Your task to perform on an android device: Open sound settings Image 0: 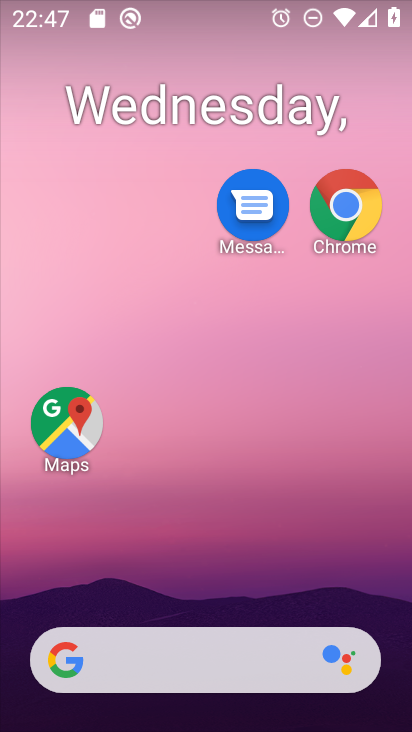
Step 0: drag from (162, 517) to (212, 97)
Your task to perform on an android device: Open sound settings Image 1: 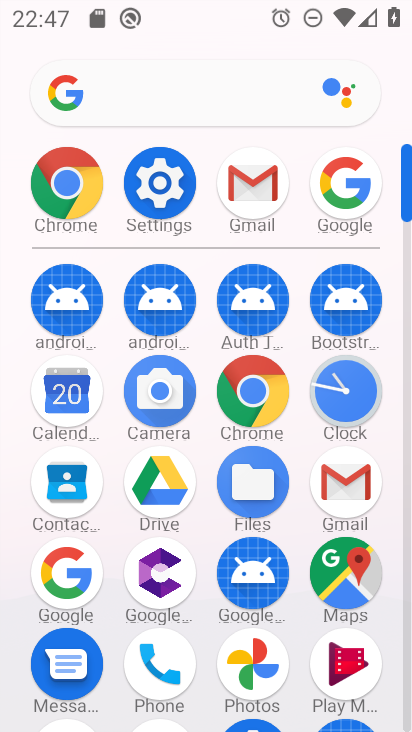
Step 1: click (167, 181)
Your task to perform on an android device: Open sound settings Image 2: 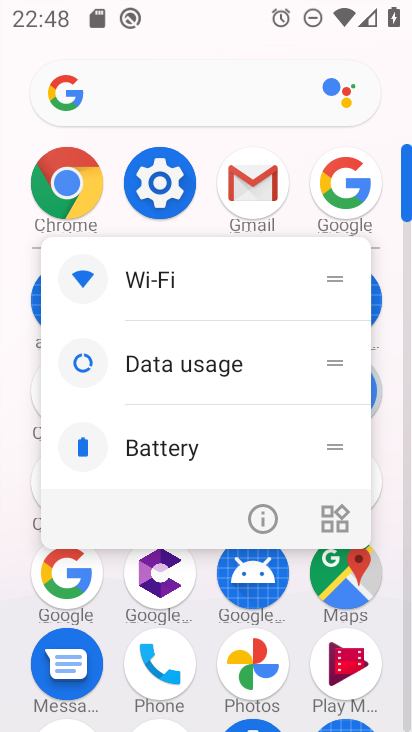
Step 2: click (273, 521)
Your task to perform on an android device: Open sound settings Image 3: 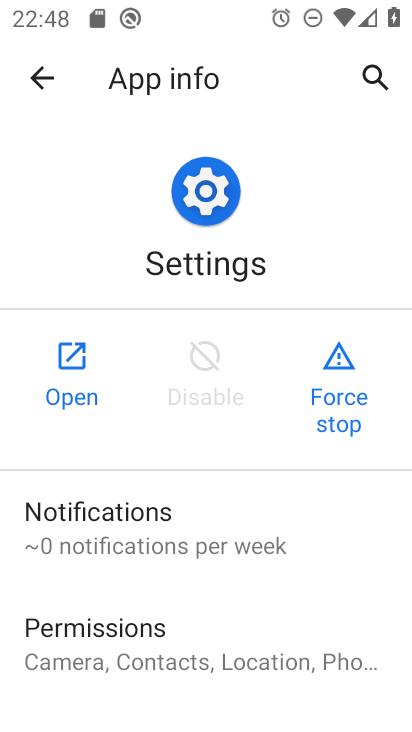
Step 3: click (51, 370)
Your task to perform on an android device: Open sound settings Image 4: 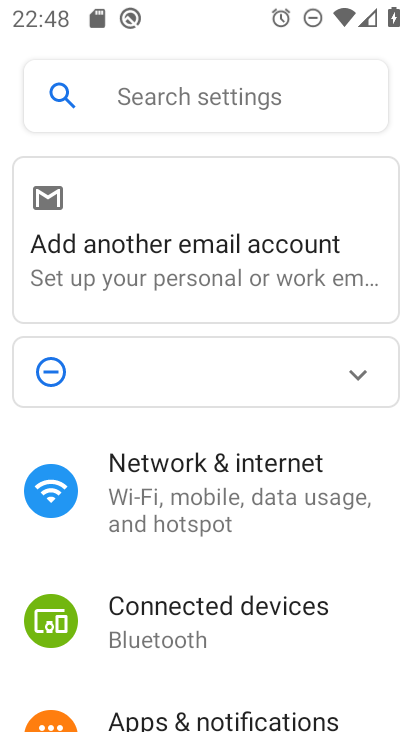
Step 4: drag from (252, 630) to (296, 75)
Your task to perform on an android device: Open sound settings Image 5: 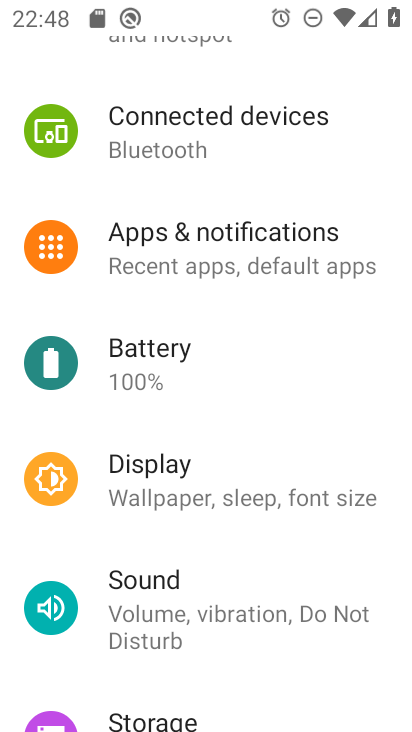
Step 5: drag from (258, 585) to (258, 258)
Your task to perform on an android device: Open sound settings Image 6: 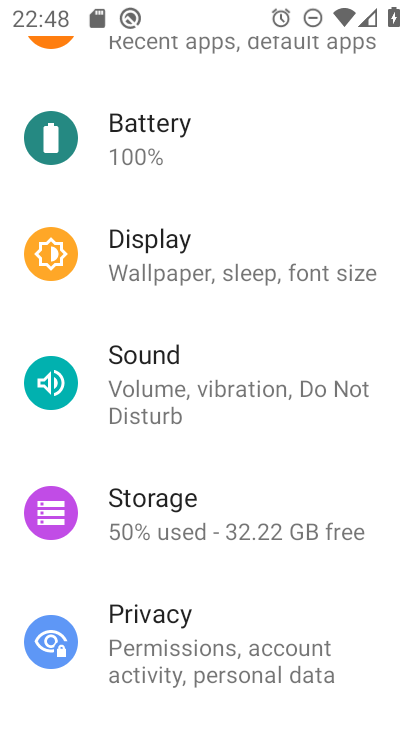
Step 6: click (186, 363)
Your task to perform on an android device: Open sound settings Image 7: 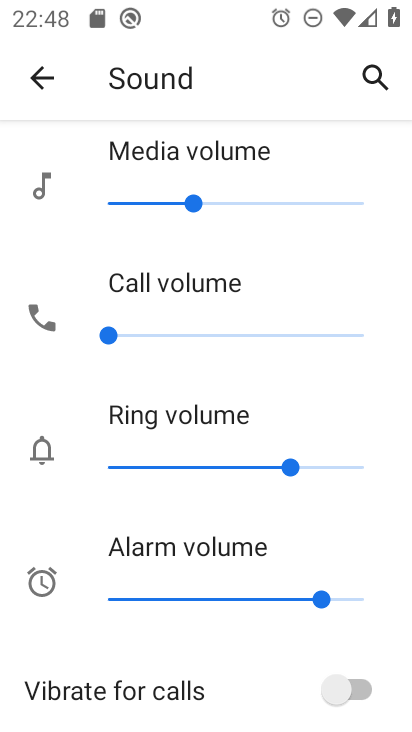
Step 7: task complete